Your task to perform on an android device: toggle location history Image 0: 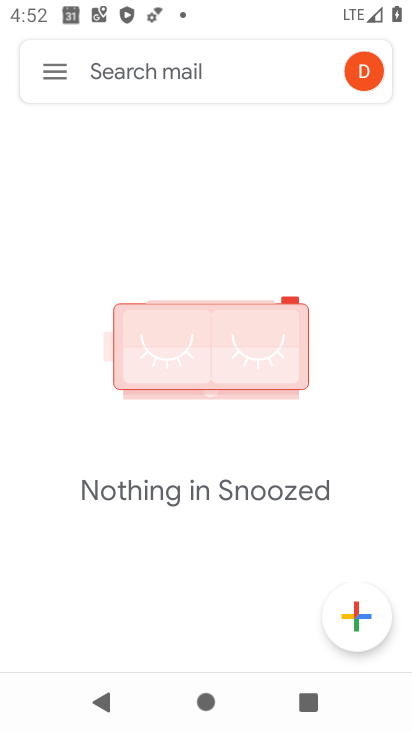
Step 0: press home button
Your task to perform on an android device: toggle location history Image 1: 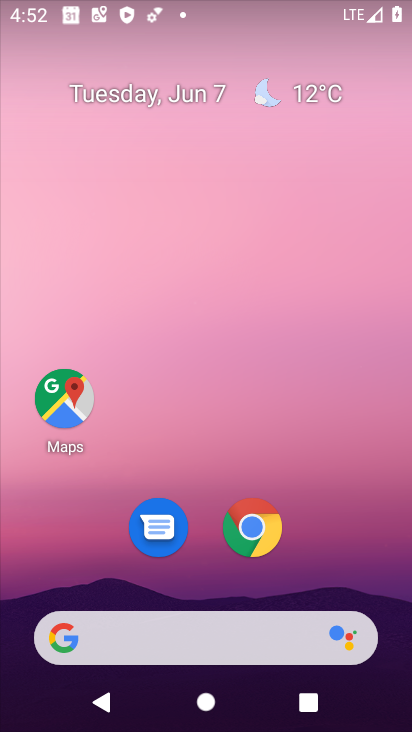
Step 1: drag from (310, 571) to (290, 3)
Your task to perform on an android device: toggle location history Image 2: 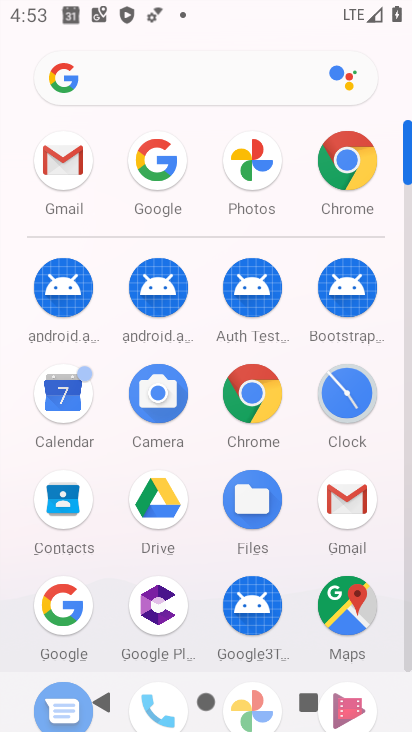
Step 2: drag from (294, 433) to (325, 205)
Your task to perform on an android device: toggle location history Image 3: 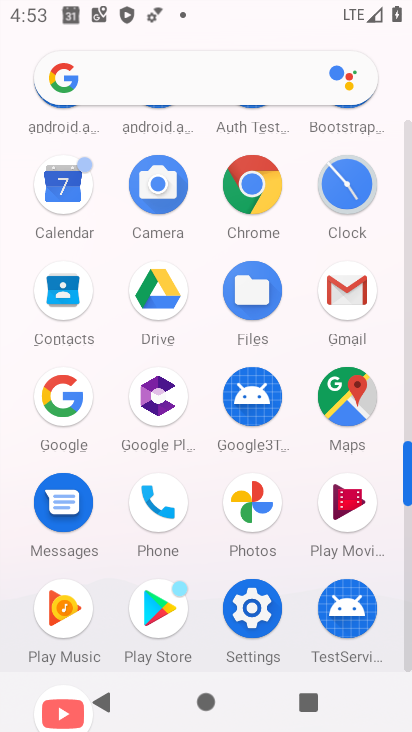
Step 3: click (254, 606)
Your task to perform on an android device: toggle location history Image 4: 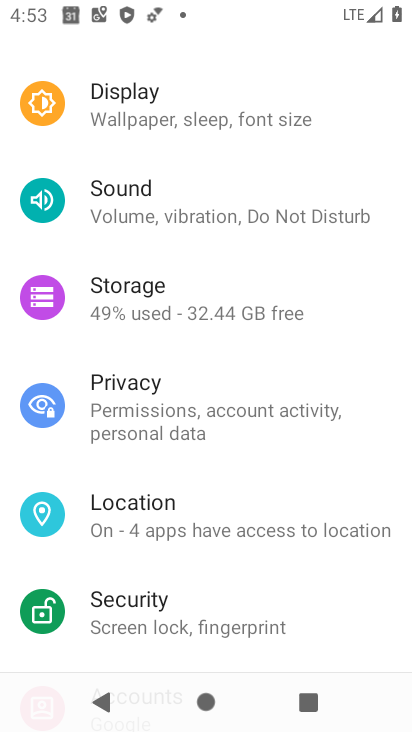
Step 4: click (148, 505)
Your task to perform on an android device: toggle location history Image 5: 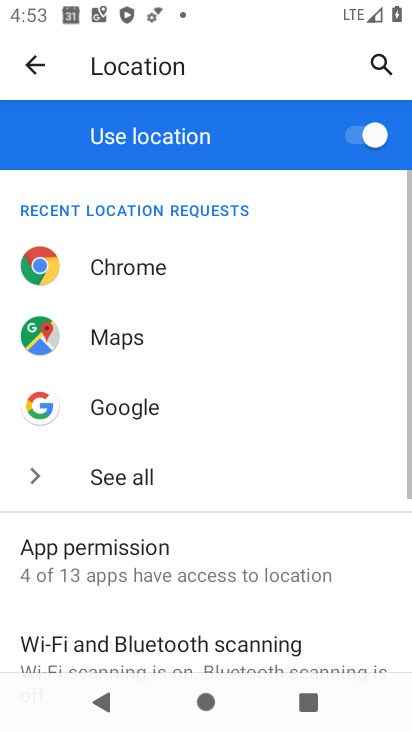
Step 5: drag from (184, 592) to (220, 454)
Your task to perform on an android device: toggle location history Image 6: 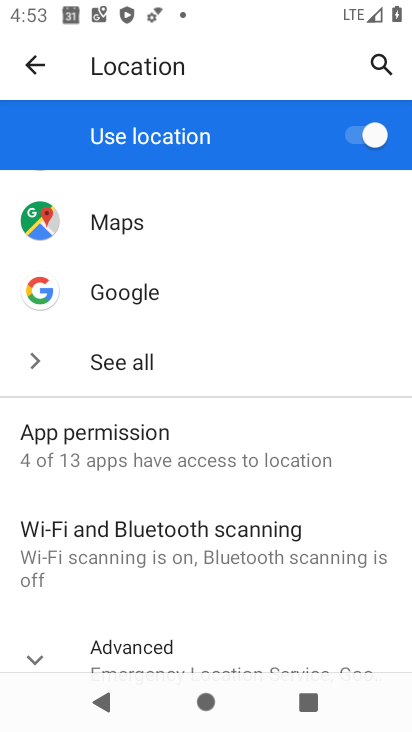
Step 6: drag from (151, 594) to (209, 416)
Your task to perform on an android device: toggle location history Image 7: 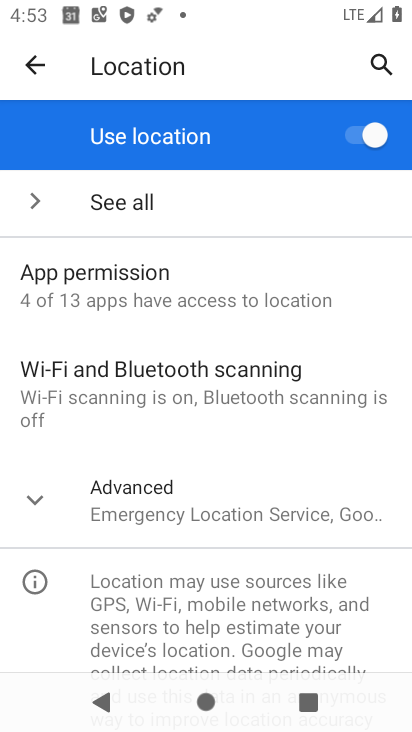
Step 7: click (211, 512)
Your task to perform on an android device: toggle location history Image 8: 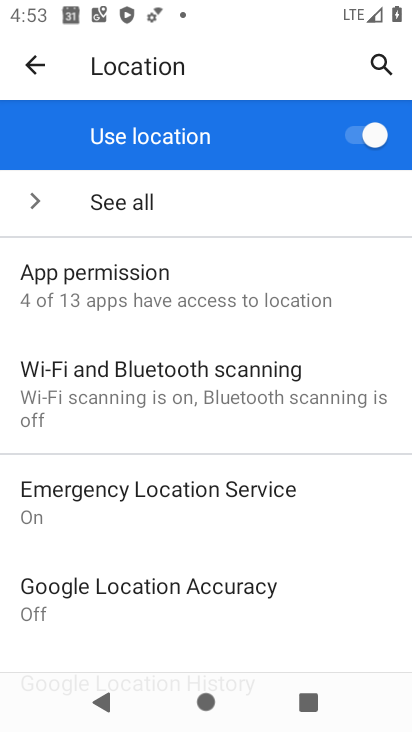
Step 8: drag from (121, 620) to (164, 492)
Your task to perform on an android device: toggle location history Image 9: 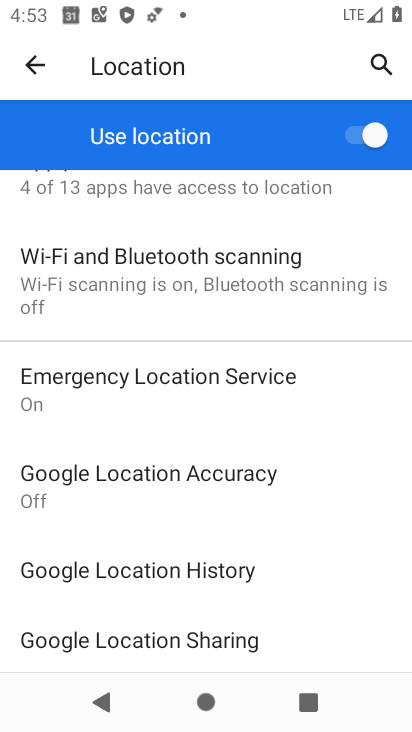
Step 9: click (144, 569)
Your task to perform on an android device: toggle location history Image 10: 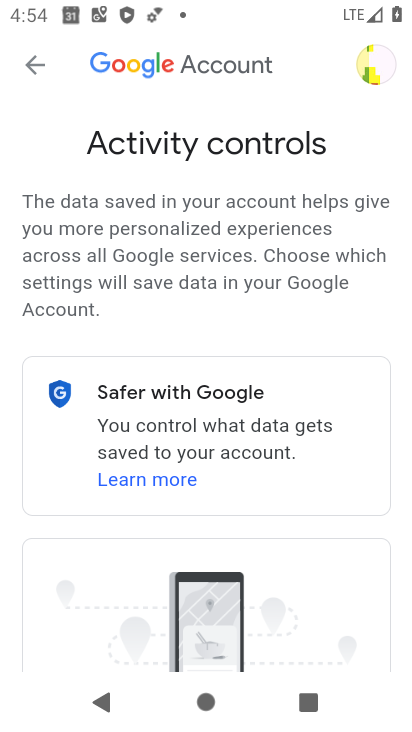
Step 10: drag from (298, 569) to (304, 386)
Your task to perform on an android device: toggle location history Image 11: 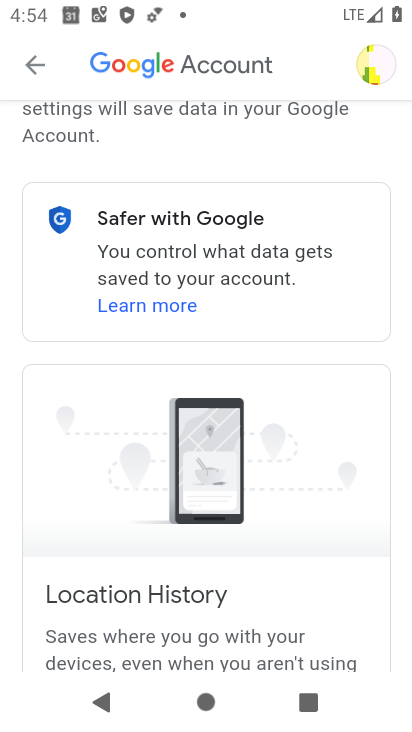
Step 11: drag from (251, 386) to (252, 329)
Your task to perform on an android device: toggle location history Image 12: 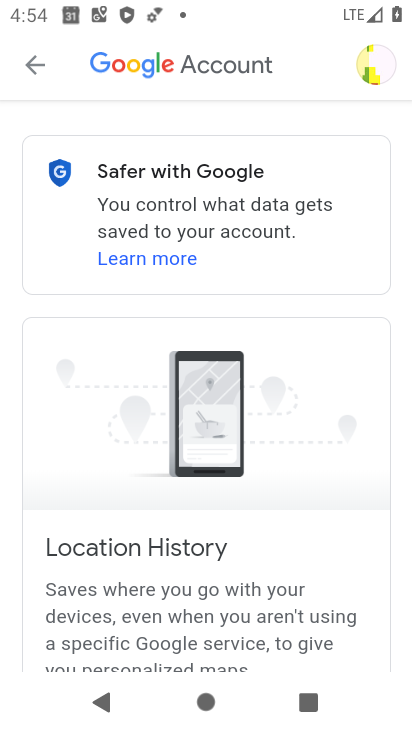
Step 12: drag from (251, 598) to (265, 296)
Your task to perform on an android device: toggle location history Image 13: 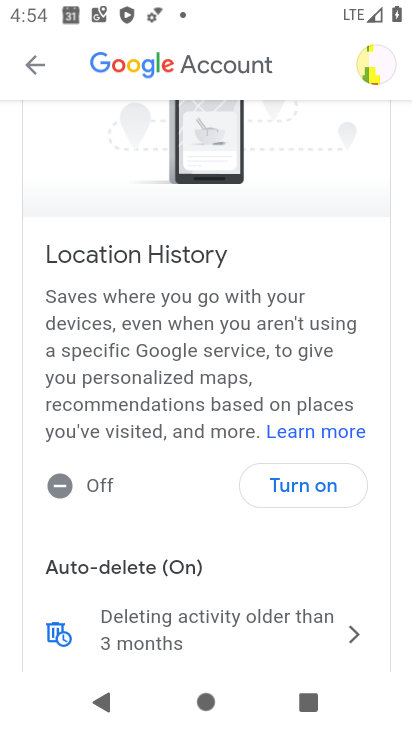
Step 13: click (303, 483)
Your task to perform on an android device: toggle location history Image 14: 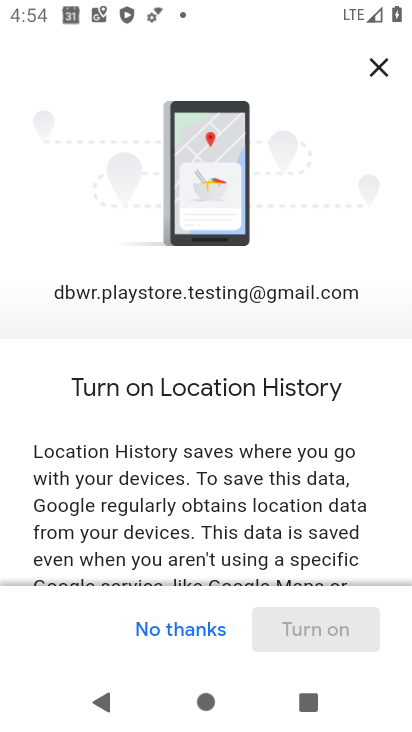
Step 14: drag from (241, 417) to (238, 323)
Your task to perform on an android device: toggle location history Image 15: 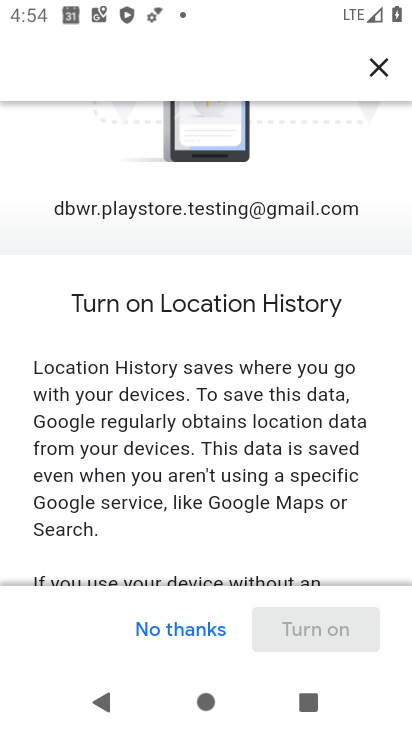
Step 15: drag from (267, 497) to (270, 340)
Your task to perform on an android device: toggle location history Image 16: 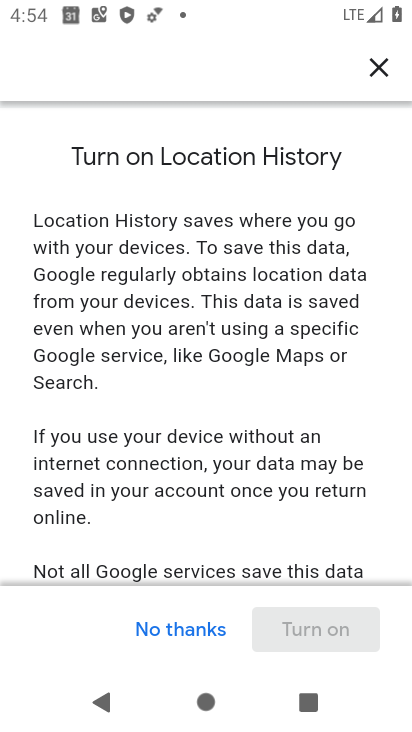
Step 16: drag from (221, 542) to (266, 365)
Your task to perform on an android device: toggle location history Image 17: 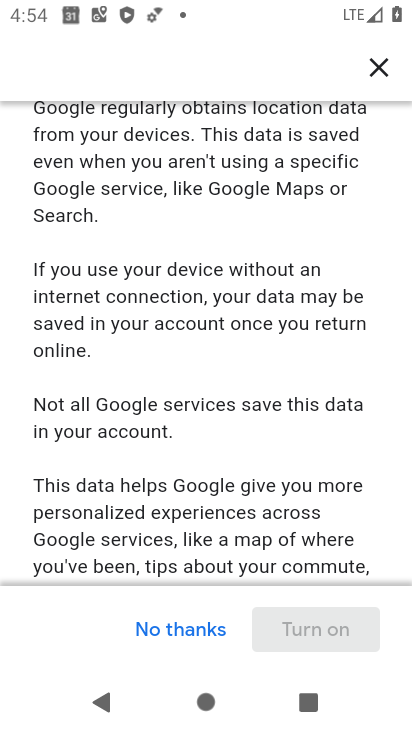
Step 17: drag from (241, 528) to (270, 342)
Your task to perform on an android device: toggle location history Image 18: 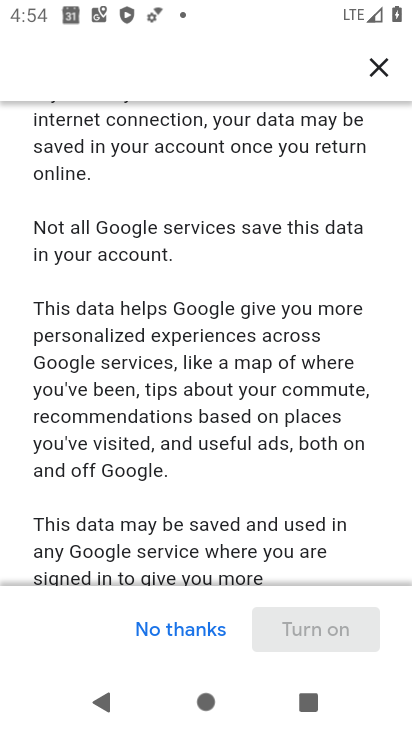
Step 18: drag from (210, 495) to (215, 339)
Your task to perform on an android device: toggle location history Image 19: 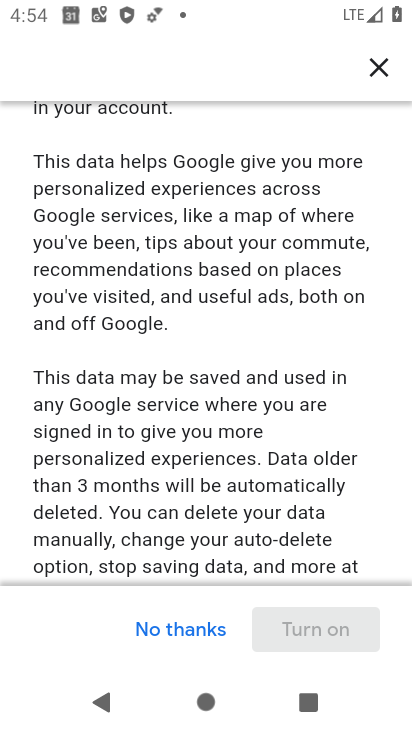
Step 19: drag from (208, 552) to (213, 319)
Your task to perform on an android device: toggle location history Image 20: 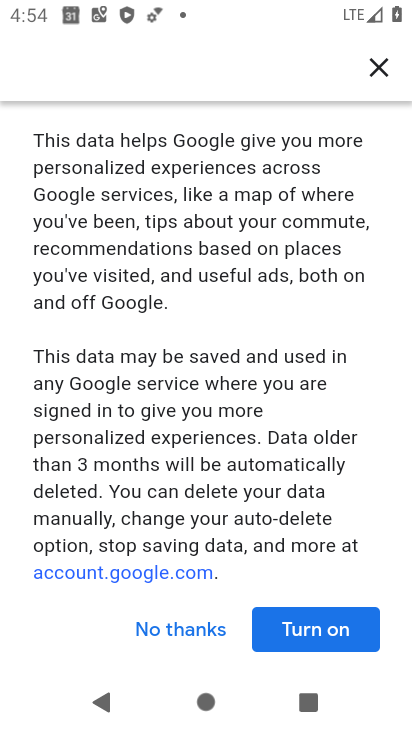
Step 20: click (320, 635)
Your task to perform on an android device: toggle location history Image 21: 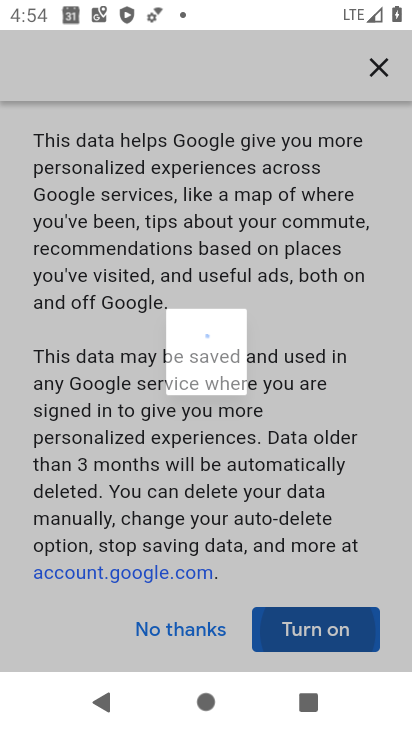
Step 21: click (320, 635)
Your task to perform on an android device: toggle location history Image 22: 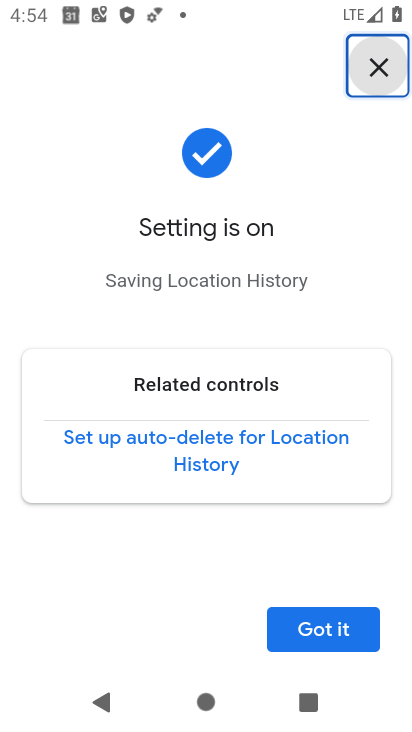
Step 22: click (320, 635)
Your task to perform on an android device: toggle location history Image 23: 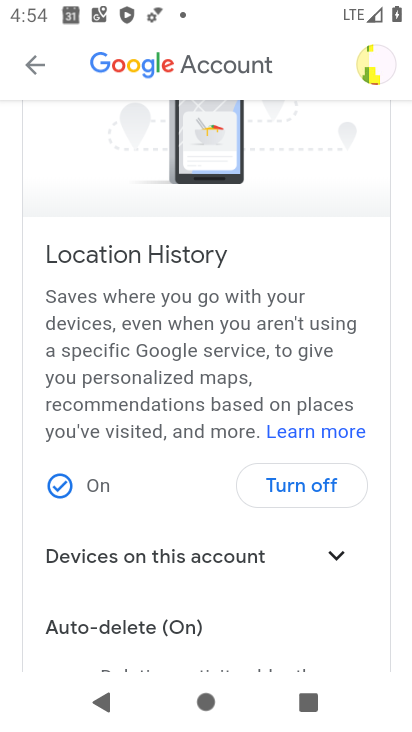
Step 23: task complete